Your task to perform on an android device: Open ESPN.com Image 0: 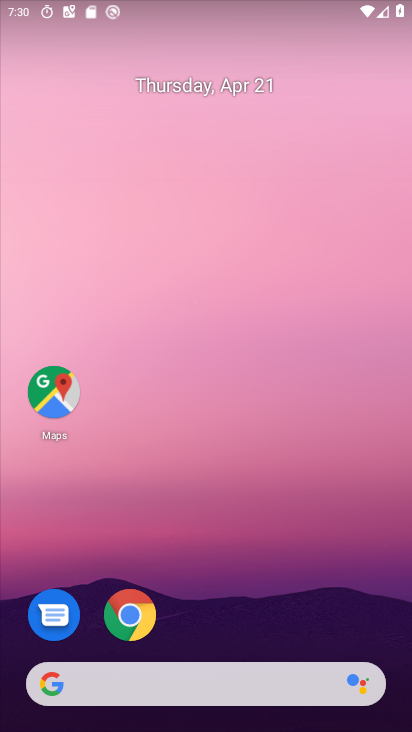
Step 0: drag from (196, 615) to (326, 144)
Your task to perform on an android device: Open ESPN.com Image 1: 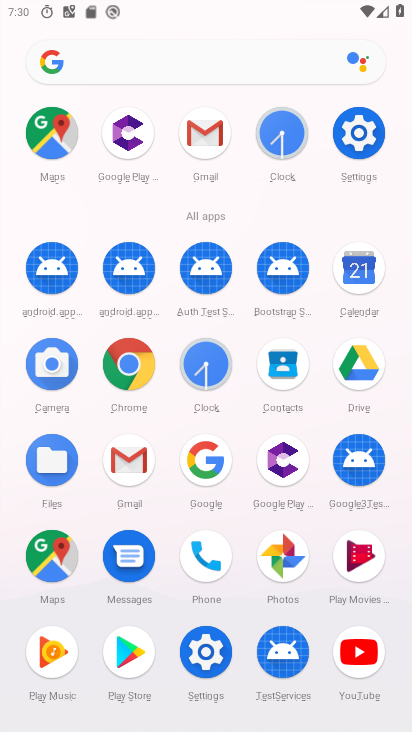
Step 1: click (139, 371)
Your task to perform on an android device: Open ESPN.com Image 2: 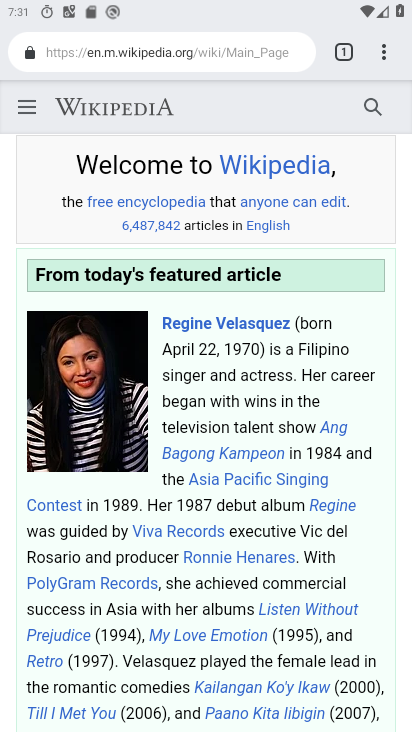
Step 2: click (374, 60)
Your task to perform on an android device: Open ESPN.com Image 3: 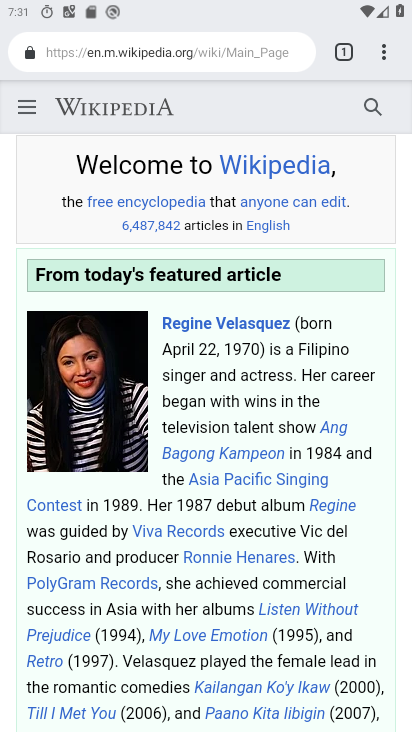
Step 3: click (382, 67)
Your task to perform on an android device: Open ESPN.com Image 4: 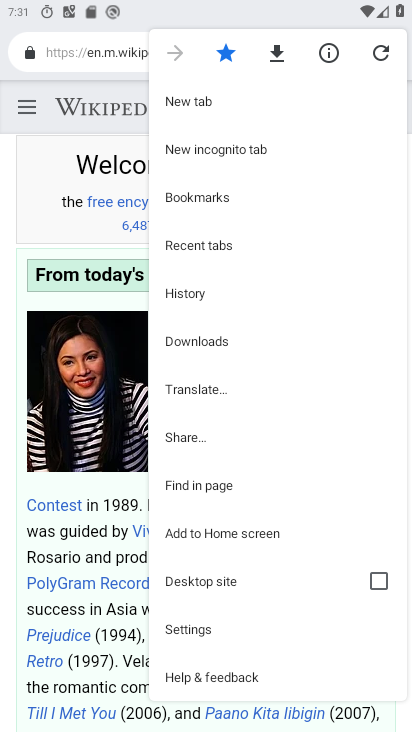
Step 4: click (210, 101)
Your task to perform on an android device: Open ESPN.com Image 5: 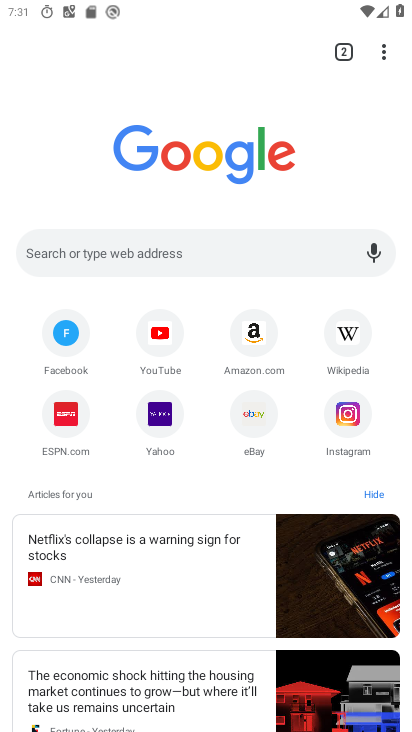
Step 5: click (65, 418)
Your task to perform on an android device: Open ESPN.com Image 6: 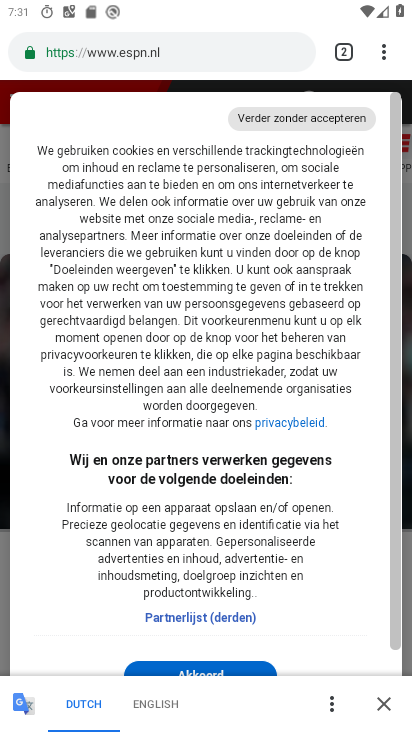
Step 6: task complete